Your task to perform on an android device: delete browsing data in the chrome app Image 0: 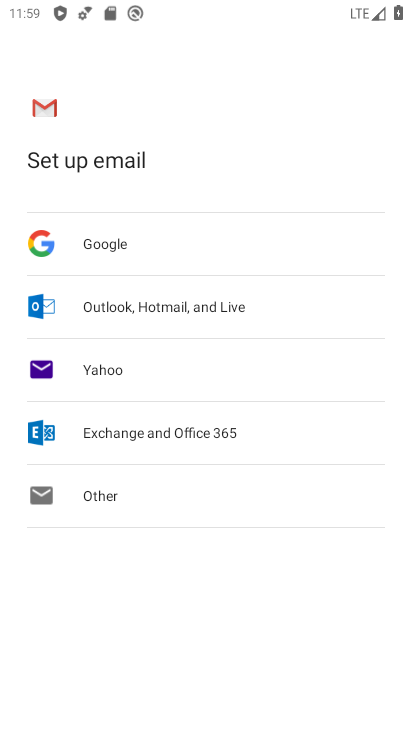
Step 0: press home button
Your task to perform on an android device: delete browsing data in the chrome app Image 1: 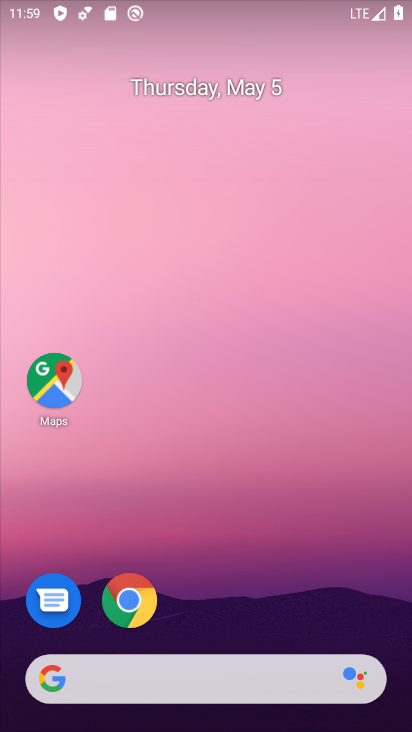
Step 1: click (138, 598)
Your task to perform on an android device: delete browsing data in the chrome app Image 2: 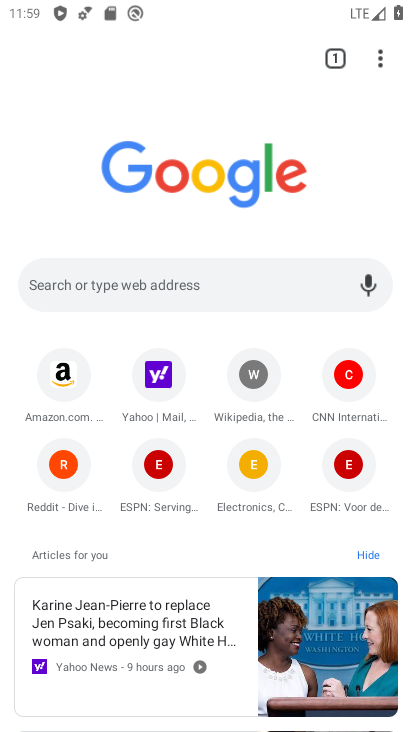
Step 2: click (376, 58)
Your task to perform on an android device: delete browsing data in the chrome app Image 3: 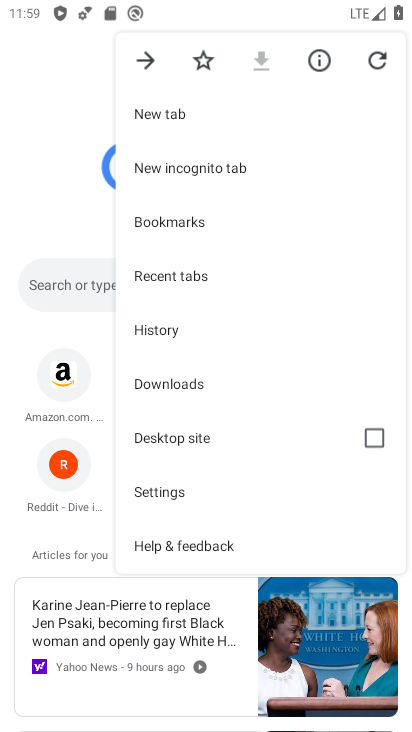
Step 3: click (165, 333)
Your task to perform on an android device: delete browsing data in the chrome app Image 4: 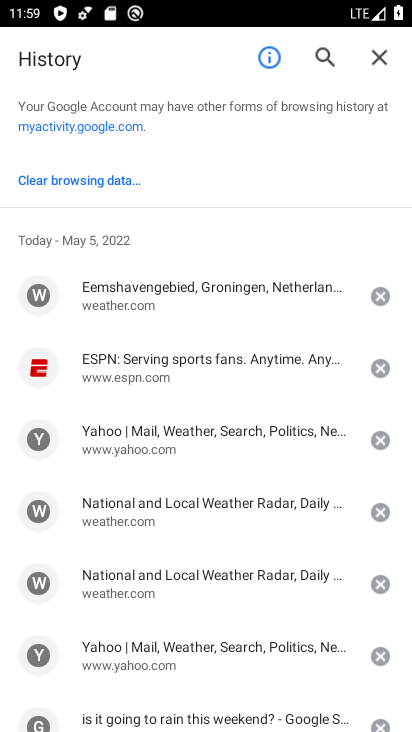
Step 4: click (102, 178)
Your task to perform on an android device: delete browsing data in the chrome app Image 5: 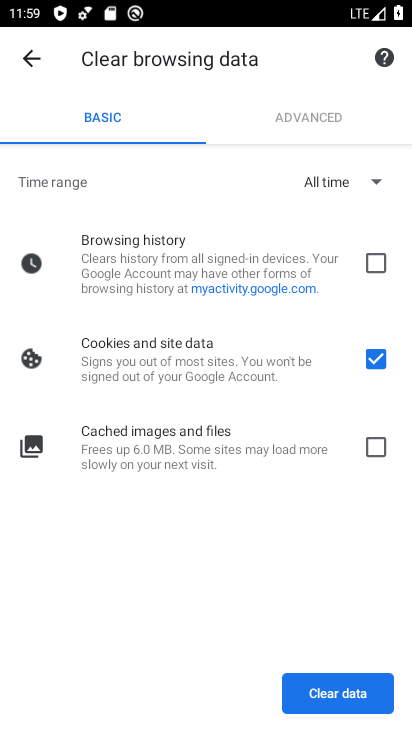
Step 5: click (369, 261)
Your task to perform on an android device: delete browsing data in the chrome app Image 6: 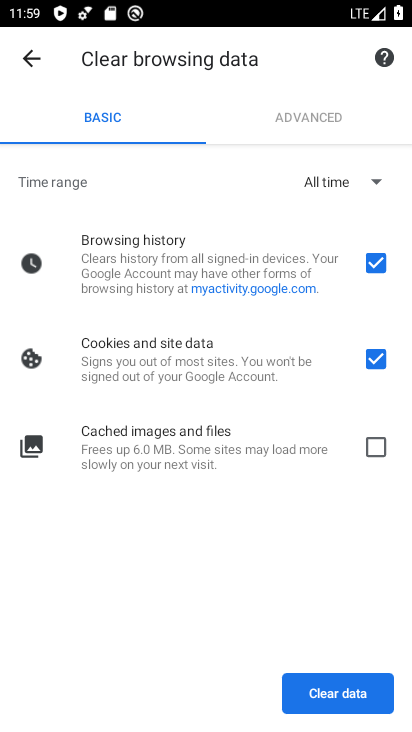
Step 6: click (338, 696)
Your task to perform on an android device: delete browsing data in the chrome app Image 7: 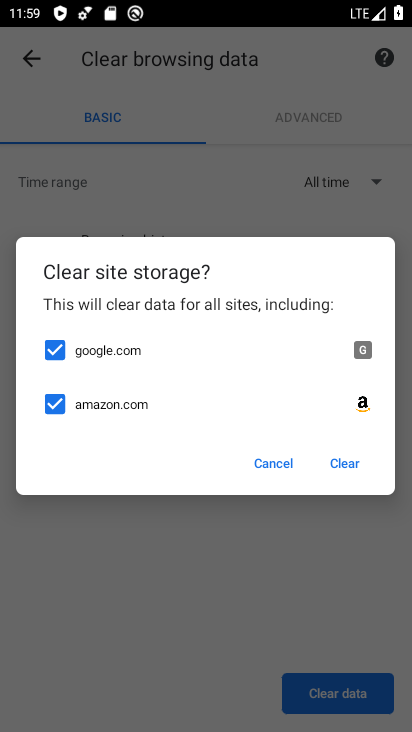
Step 7: click (343, 461)
Your task to perform on an android device: delete browsing data in the chrome app Image 8: 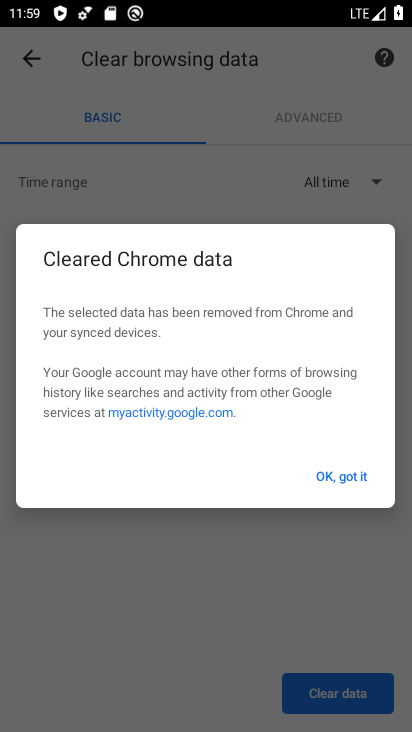
Step 8: click (348, 473)
Your task to perform on an android device: delete browsing data in the chrome app Image 9: 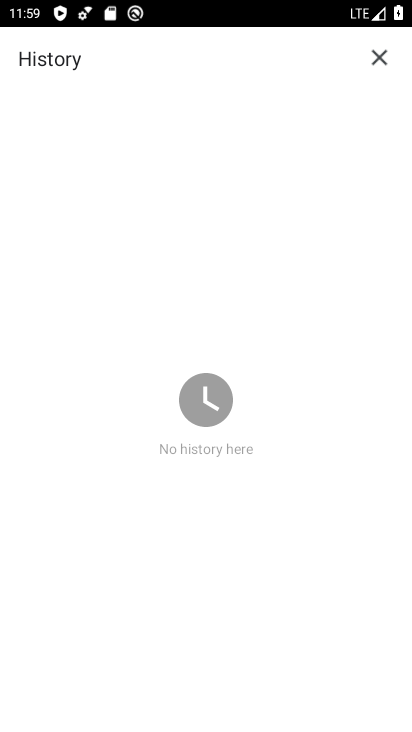
Step 9: task complete